Your task to perform on an android device: Open calendar and show me the fourth week of next month Image 0: 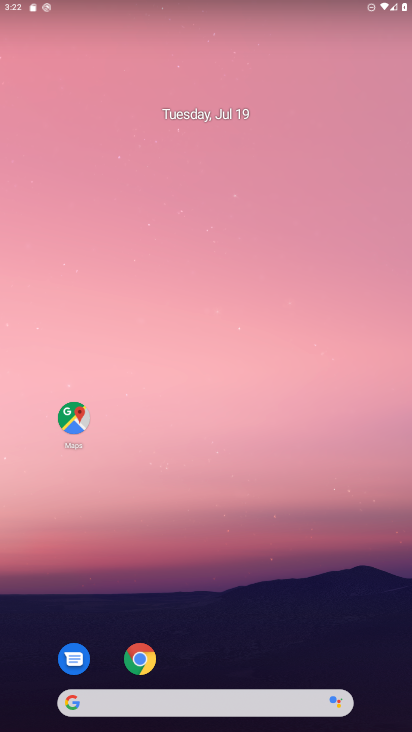
Step 0: drag from (255, 666) to (272, 2)
Your task to perform on an android device: Open calendar and show me the fourth week of next month Image 1: 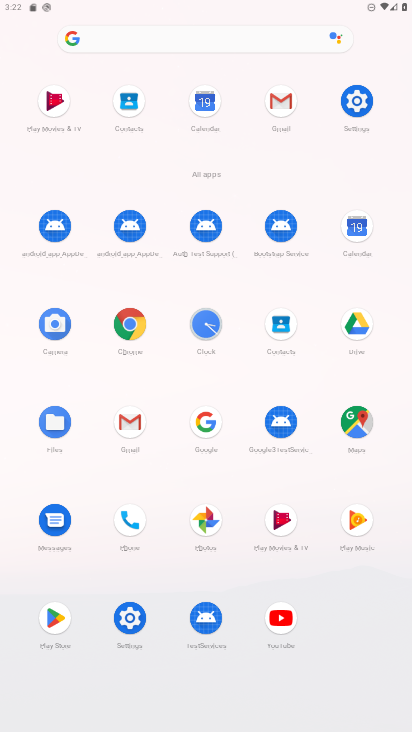
Step 1: click (359, 227)
Your task to perform on an android device: Open calendar and show me the fourth week of next month Image 2: 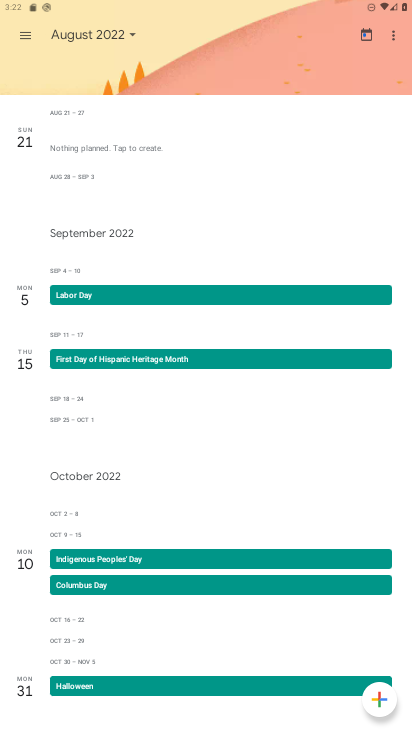
Step 2: click (99, 37)
Your task to perform on an android device: Open calendar and show me the fourth week of next month Image 3: 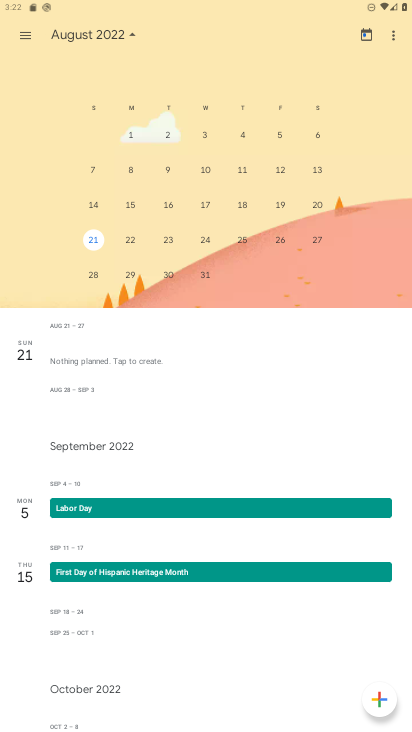
Step 3: click (91, 232)
Your task to perform on an android device: Open calendar and show me the fourth week of next month Image 4: 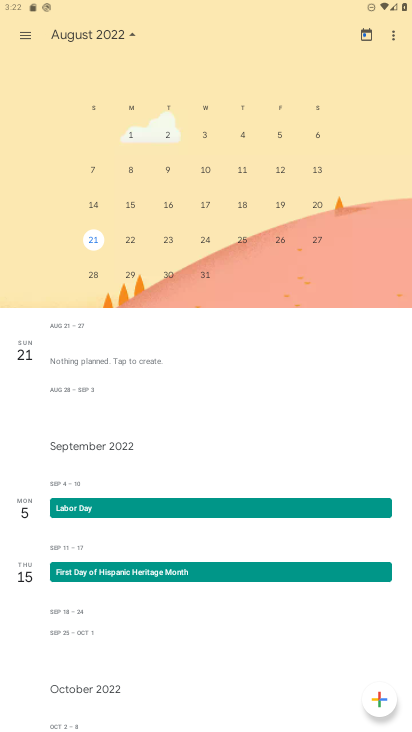
Step 4: task complete